Your task to perform on an android device: Search for Italian restaurants on Maps Image 0: 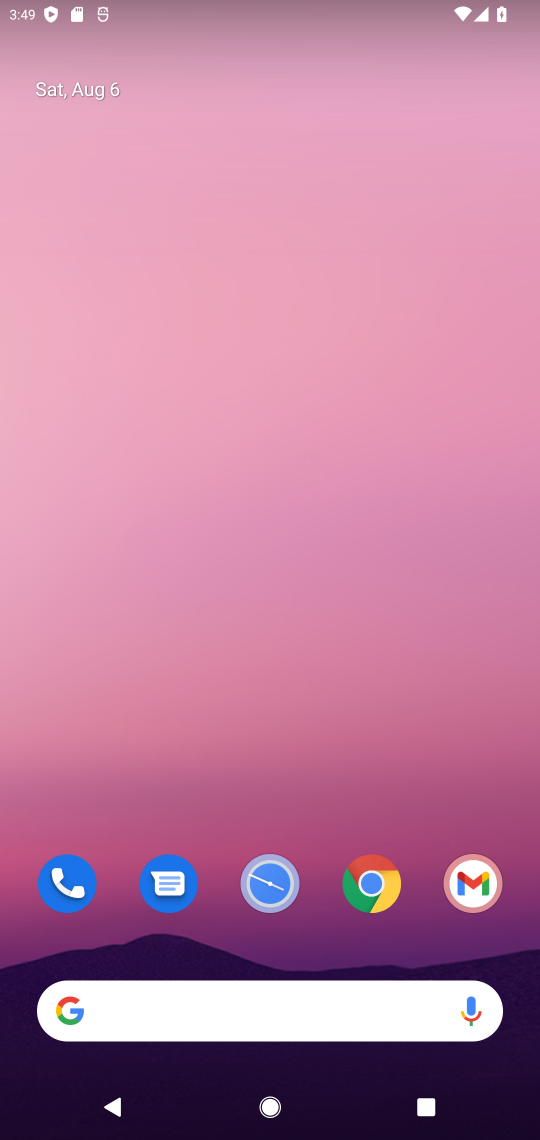
Step 0: drag from (353, 773) to (375, 153)
Your task to perform on an android device: Search for Italian restaurants on Maps Image 1: 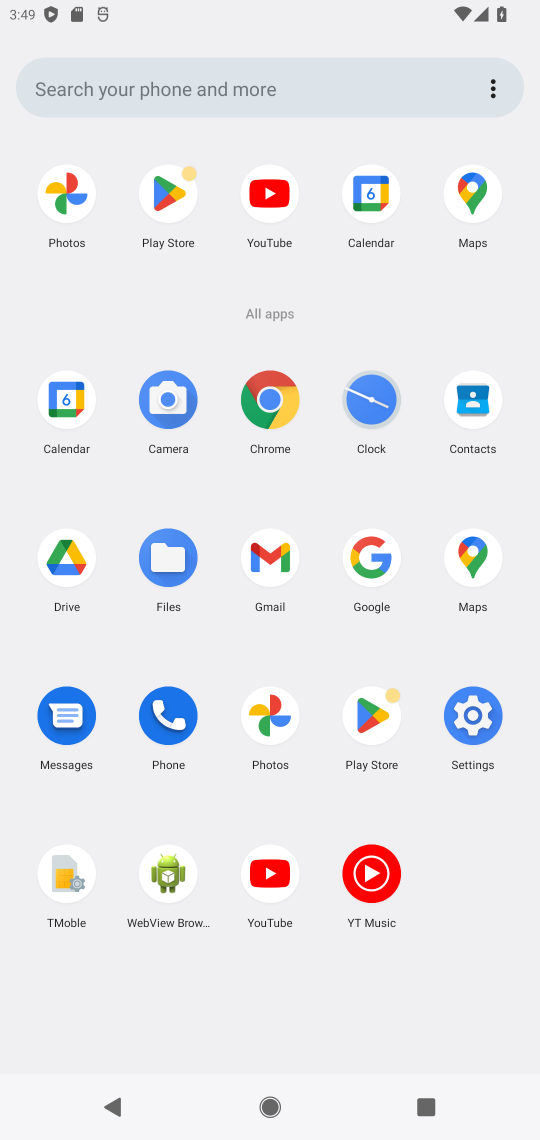
Step 1: click (468, 574)
Your task to perform on an android device: Search for Italian restaurants on Maps Image 2: 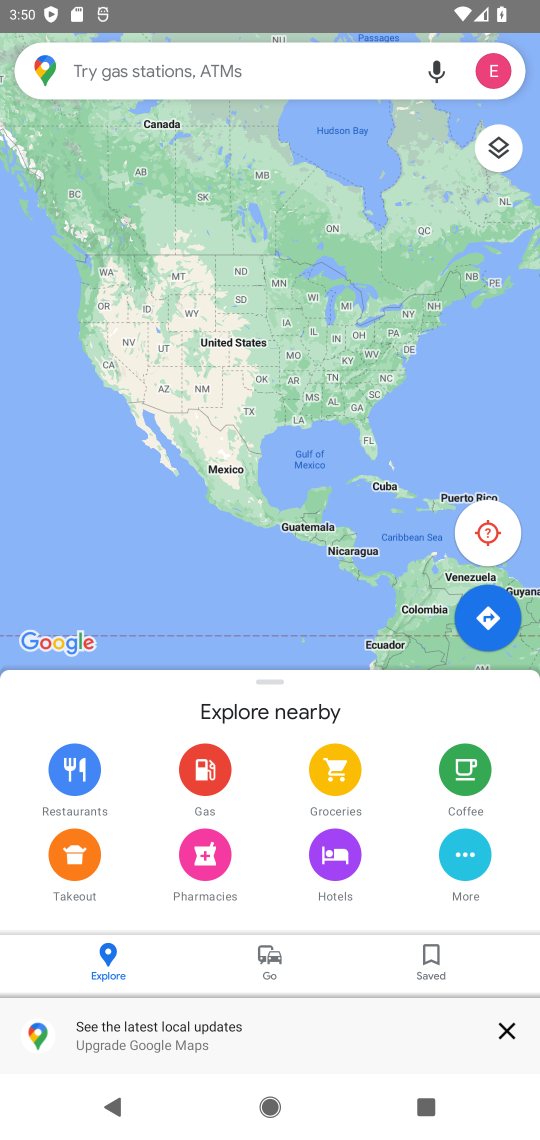
Step 2: click (264, 84)
Your task to perform on an android device: Search for Italian restaurants on Maps Image 3: 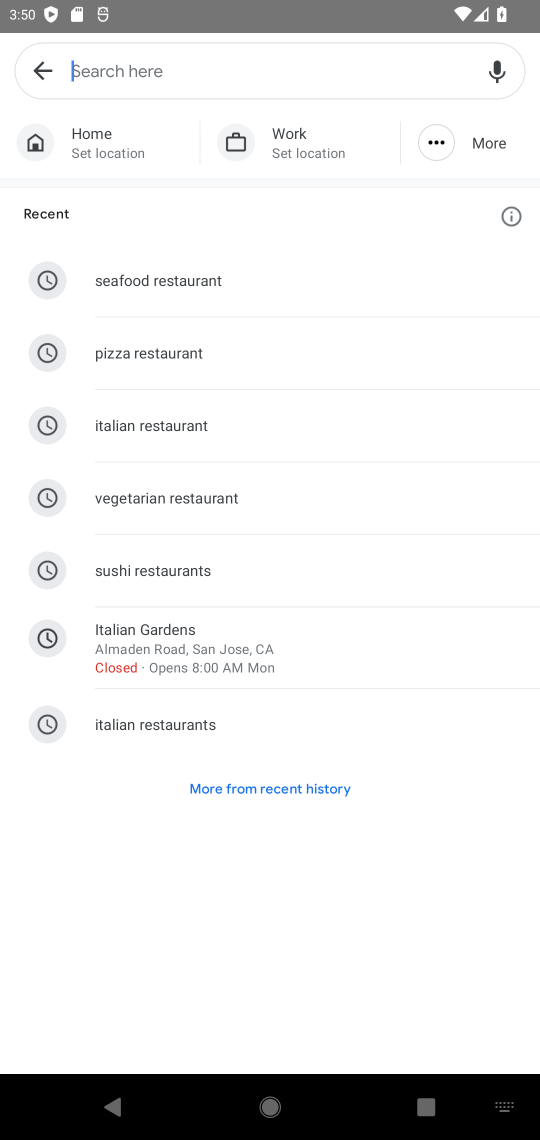
Step 3: type "italian"
Your task to perform on an android device: Search for Italian restaurants on Maps Image 4: 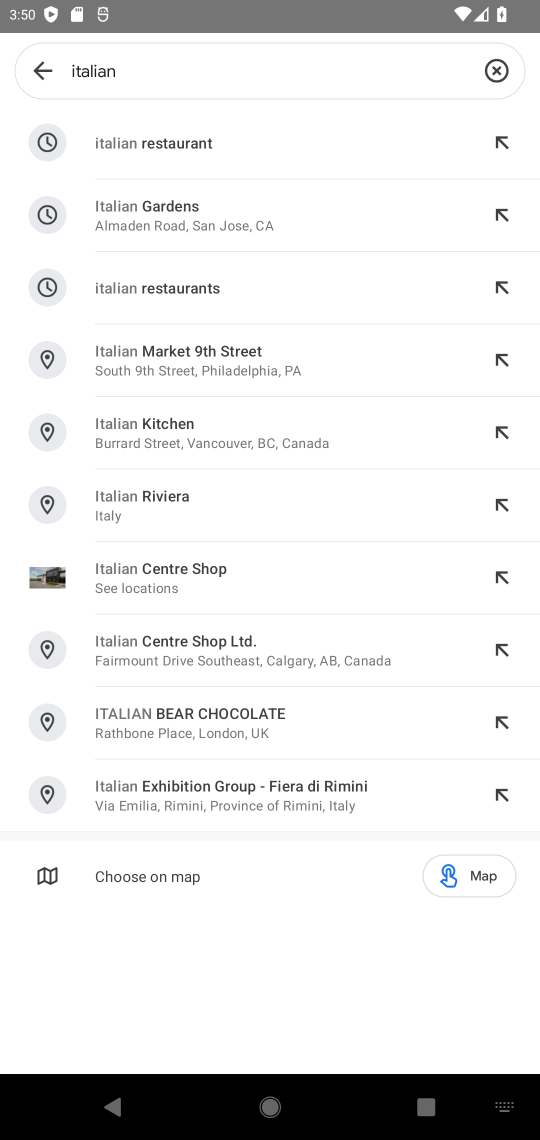
Step 4: click (182, 144)
Your task to perform on an android device: Search for Italian restaurants on Maps Image 5: 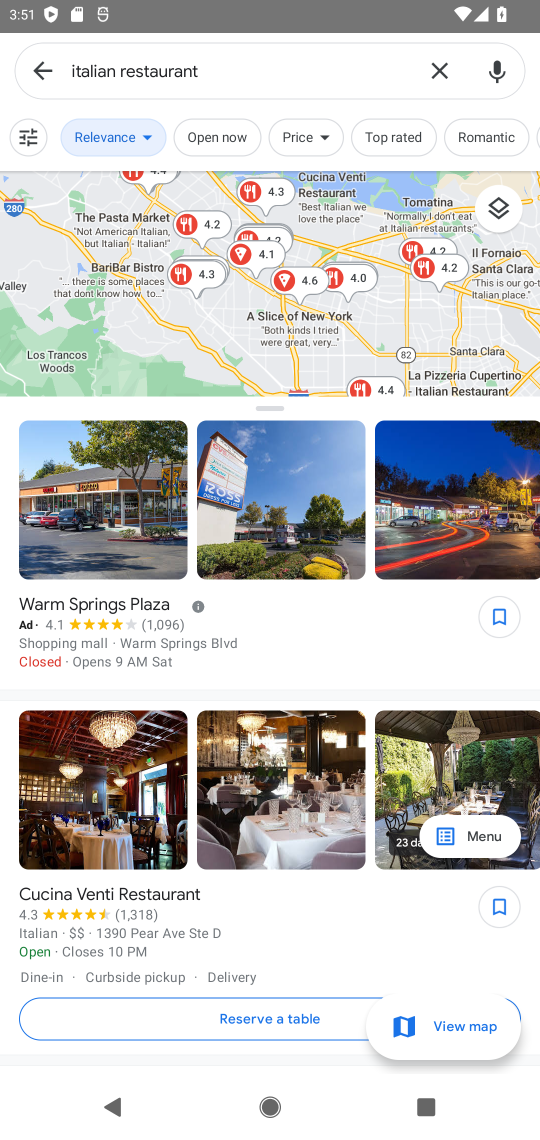
Step 5: task complete